Your task to perform on an android device: Open internet settings Image 0: 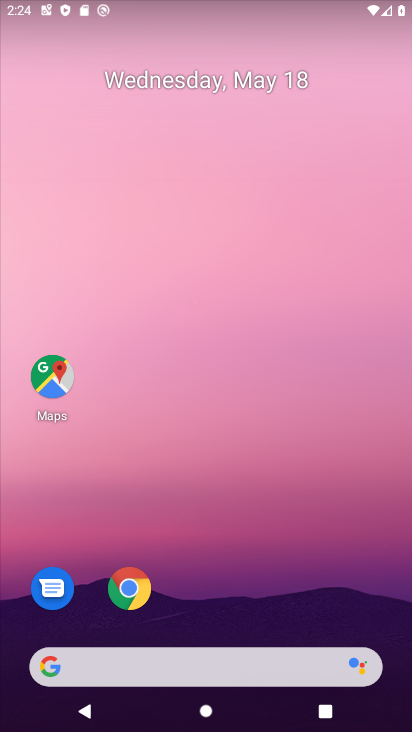
Step 0: drag from (354, 612) to (344, 249)
Your task to perform on an android device: Open internet settings Image 1: 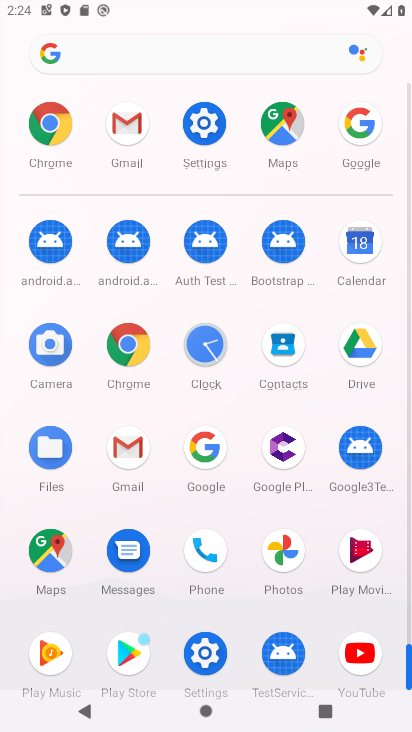
Step 1: click (220, 138)
Your task to perform on an android device: Open internet settings Image 2: 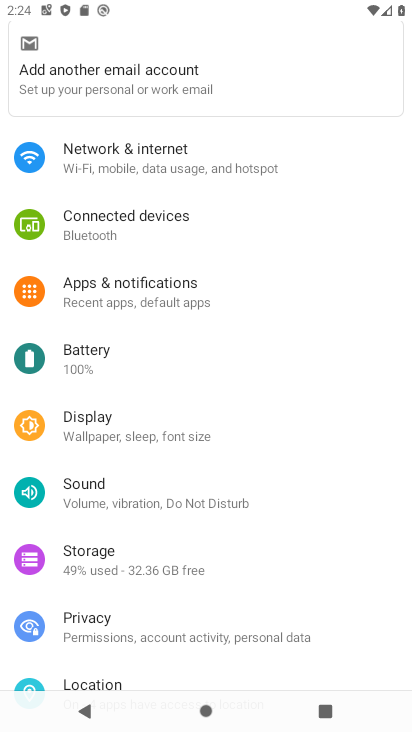
Step 2: drag from (307, 534) to (295, 419)
Your task to perform on an android device: Open internet settings Image 3: 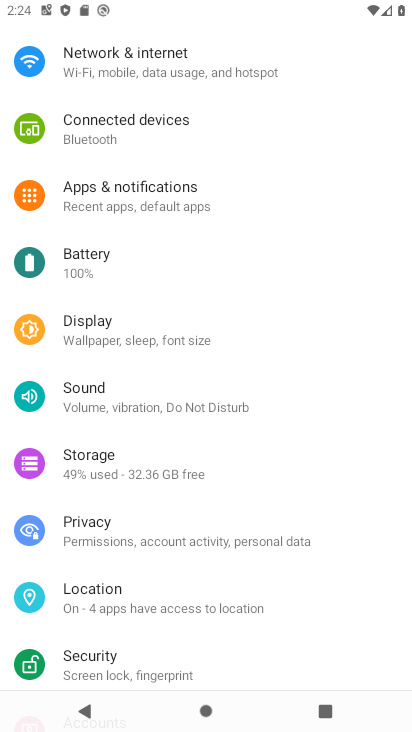
Step 3: drag from (309, 580) to (283, 428)
Your task to perform on an android device: Open internet settings Image 4: 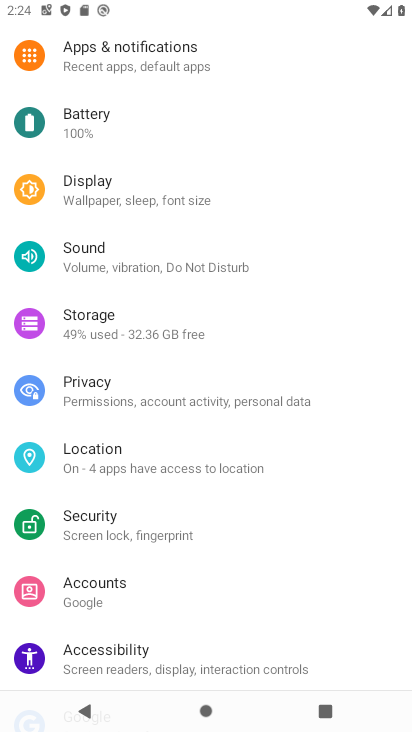
Step 4: drag from (297, 564) to (298, 464)
Your task to perform on an android device: Open internet settings Image 5: 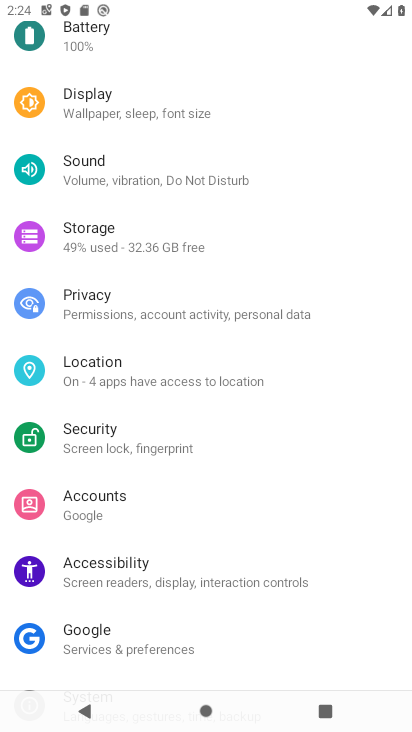
Step 5: drag from (307, 641) to (320, 497)
Your task to perform on an android device: Open internet settings Image 6: 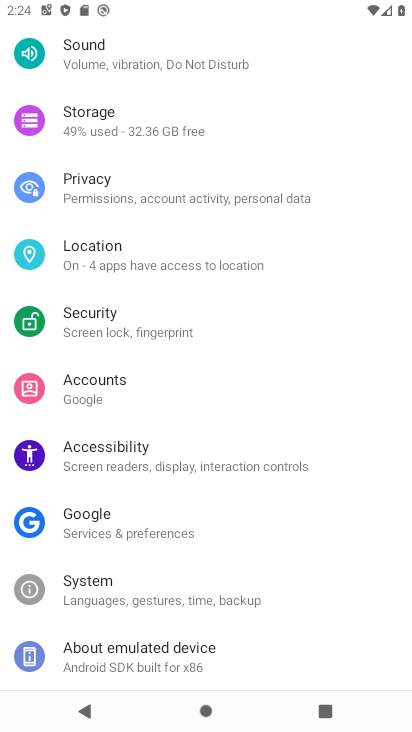
Step 6: drag from (297, 654) to (297, 551)
Your task to perform on an android device: Open internet settings Image 7: 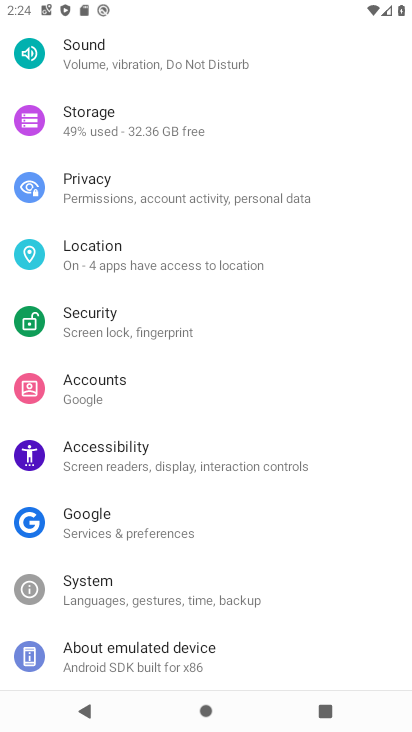
Step 7: drag from (291, 345) to (279, 510)
Your task to perform on an android device: Open internet settings Image 8: 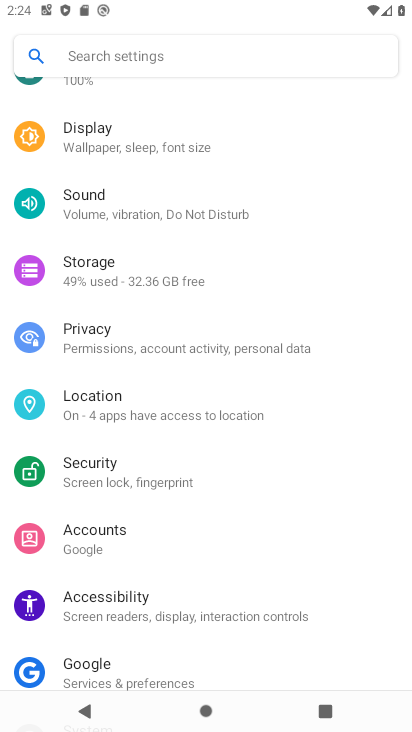
Step 8: drag from (303, 367) to (300, 481)
Your task to perform on an android device: Open internet settings Image 9: 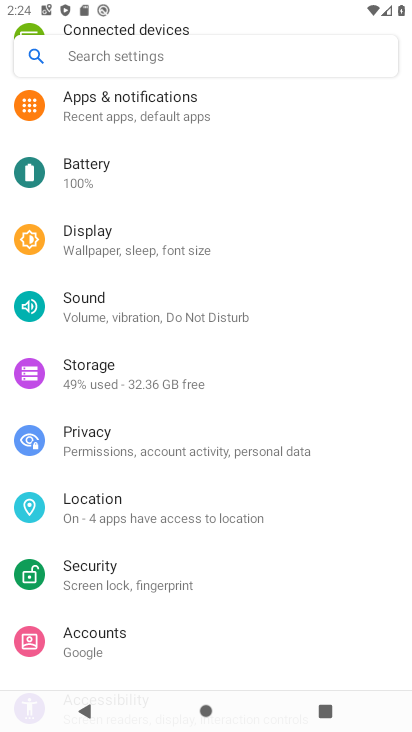
Step 9: drag from (310, 298) to (302, 416)
Your task to perform on an android device: Open internet settings Image 10: 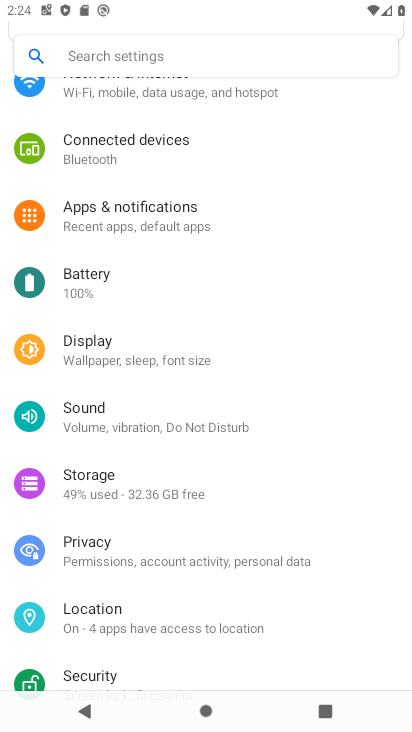
Step 10: drag from (300, 303) to (276, 442)
Your task to perform on an android device: Open internet settings Image 11: 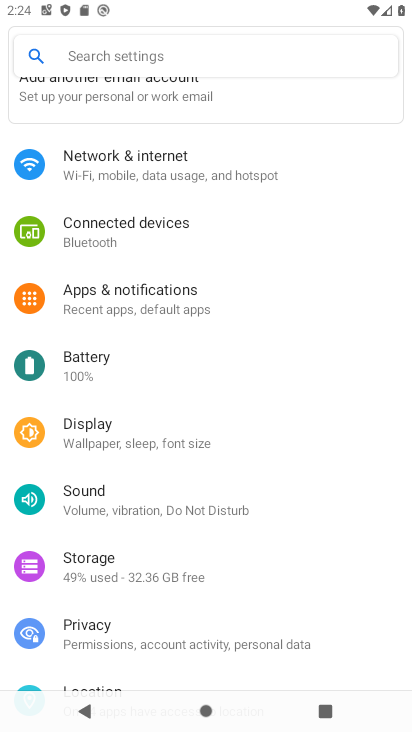
Step 11: drag from (284, 311) to (280, 409)
Your task to perform on an android device: Open internet settings Image 12: 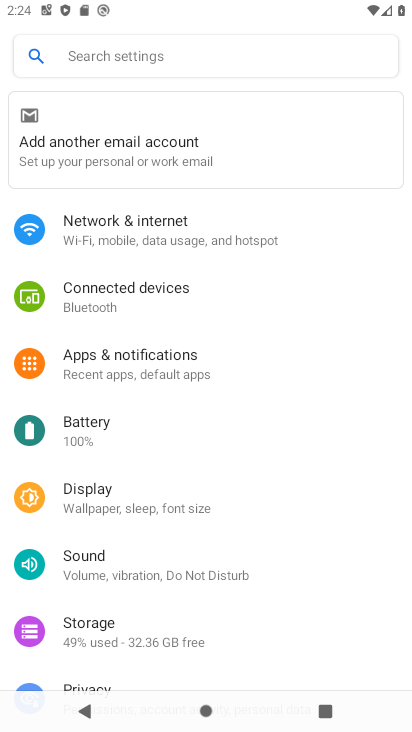
Step 12: drag from (290, 315) to (293, 445)
Your task to perform on an android device: Open internet settings Image 13: 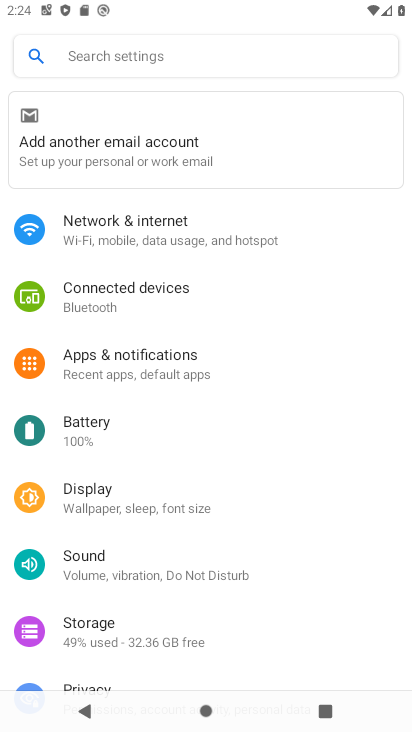
Step 13: click (276, 249)
Your task to perform on an android device: Open internet settings Image 14: 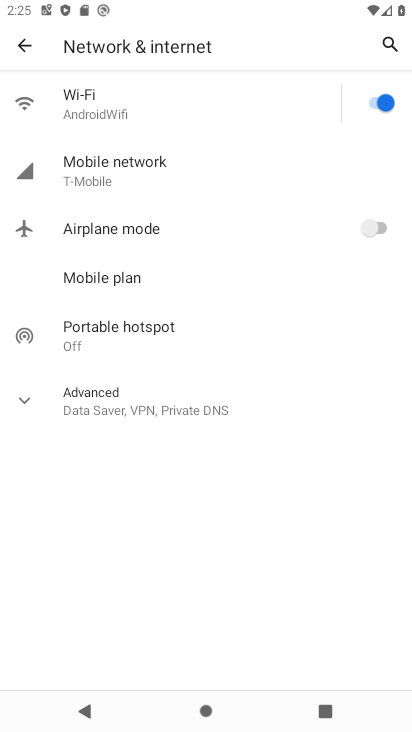
Step 14: task complete